Your task to perform on an android device: find snoozed emails in the gmail app Image 0: 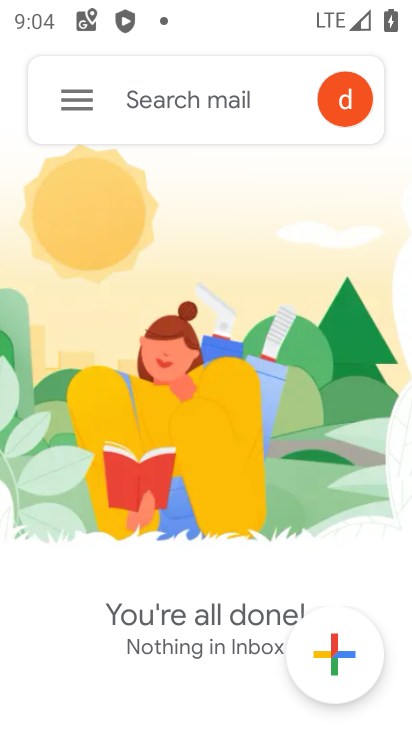
Step 0: click (79, 82)
Your task to perform on an android device: find snoozed emails in the gmail app Image 1: 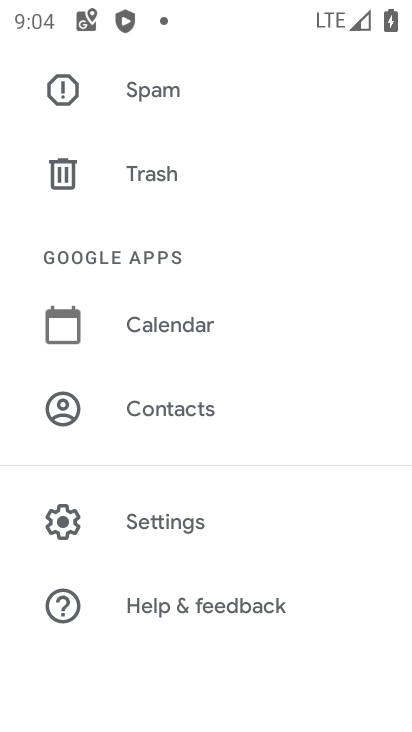
Step 1: drag from (268, 195) to (249, 522)
Your task to perform on an android device: find snoozed emails in the gmail app Image 2: 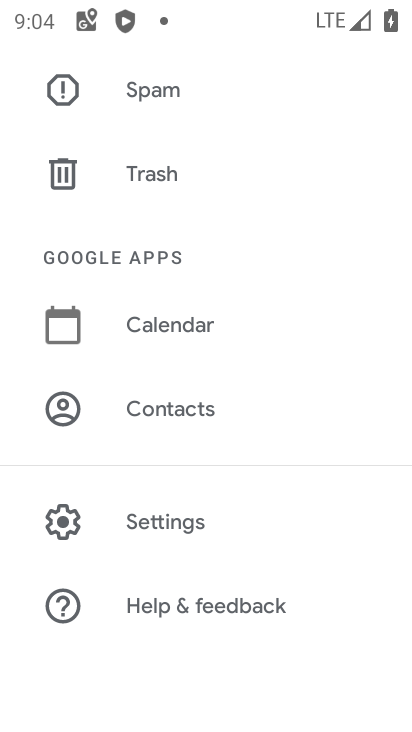
Step 2: drag from (275, 129) to (290, 647)
Your task to perform on an android device: find snoozed emails in the gmail app Image 3: 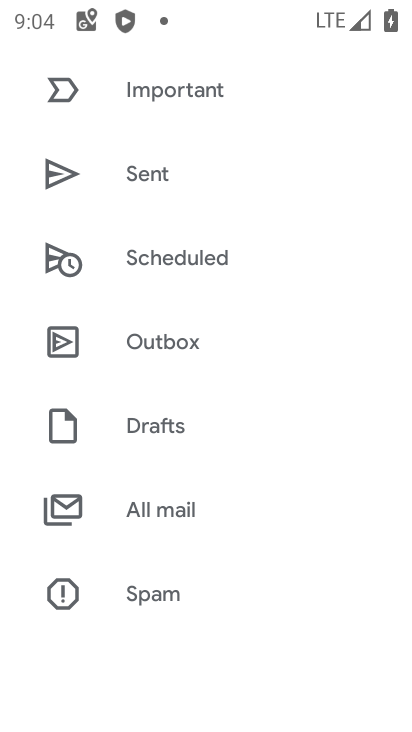
Step 3: drag from (245, 112) to (273, 611)
Your task to perform on an android device: find snoozed emails in the gmail app Image 4: 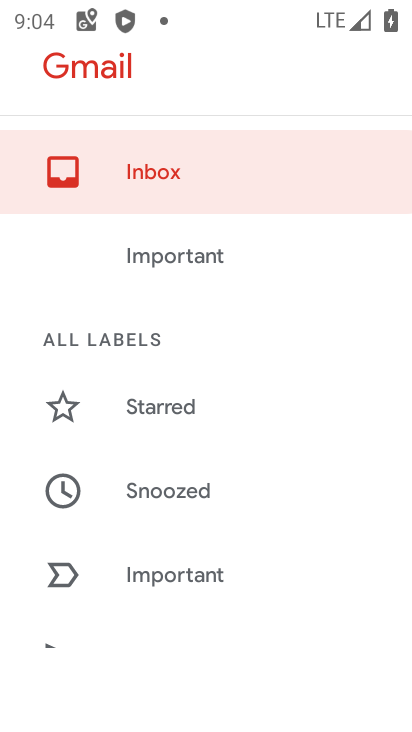
Step 4: click (174, 503)
Your task to perform on an android device: find snoozed emails in the gmail app Image 5: 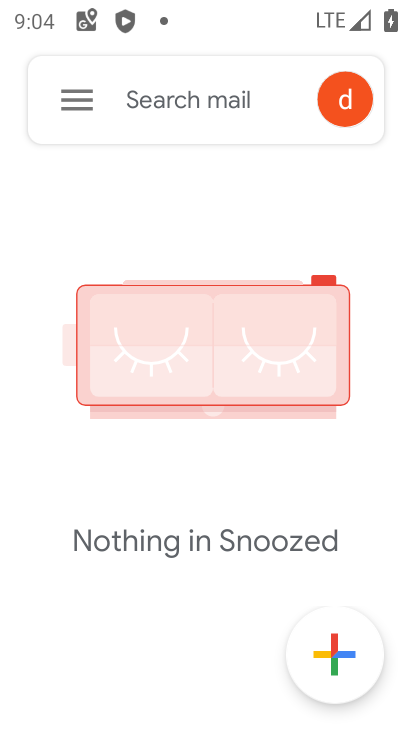
Step 5: task complete